Your task to perform on an android device: install app "Viber Messenger" Image 0: 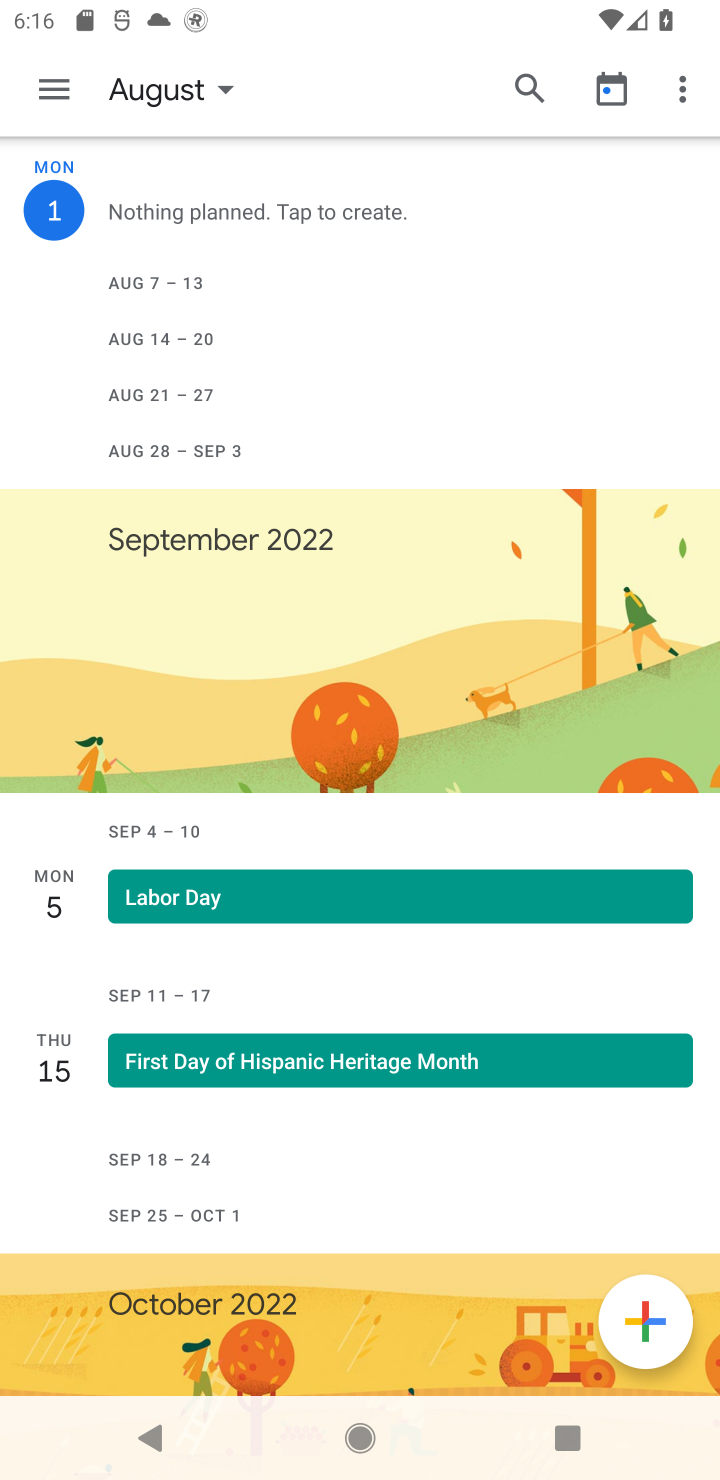
Step 0: press home button
Your task to perform on an android device: install app "Viber Messenger" Image 1: 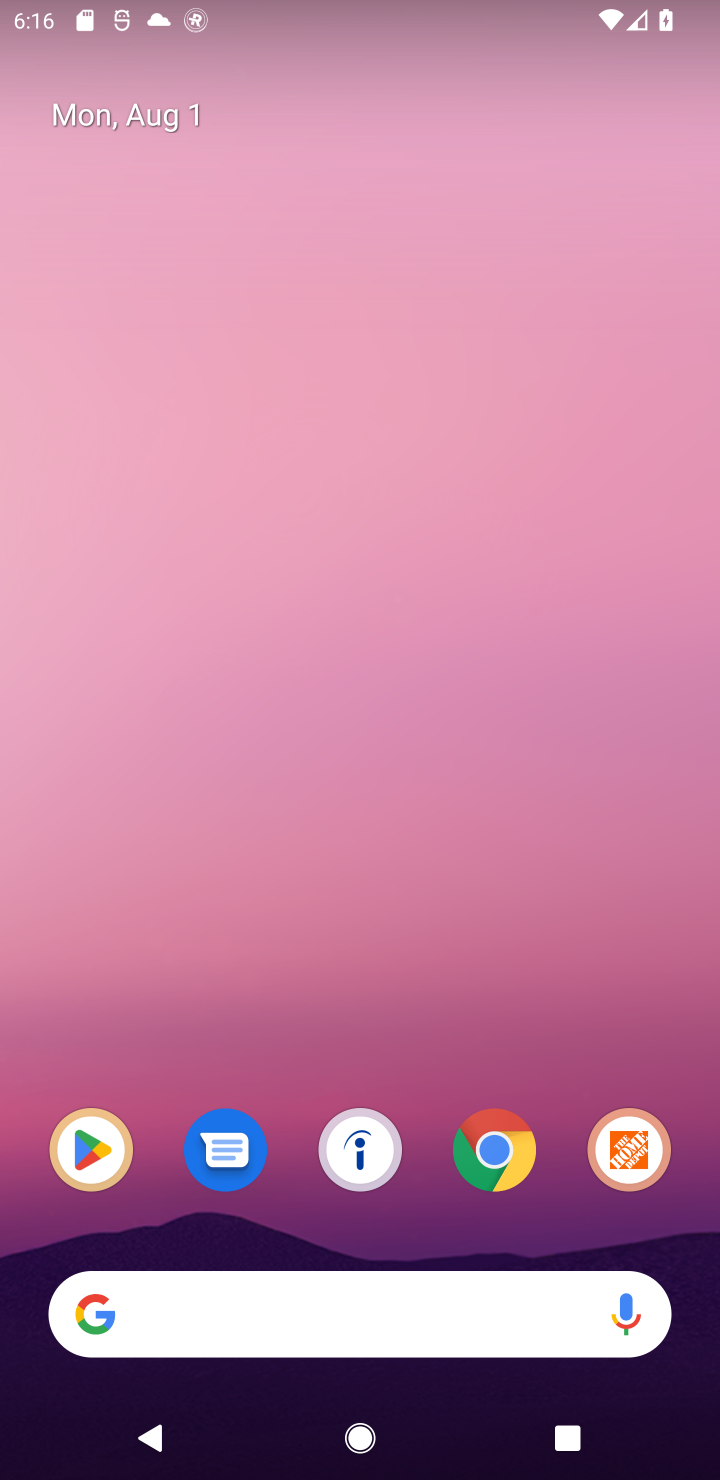
Step 1: click (355, 1306)
Your task to perform on an android device: install app "Viber Messenger" Image 2: 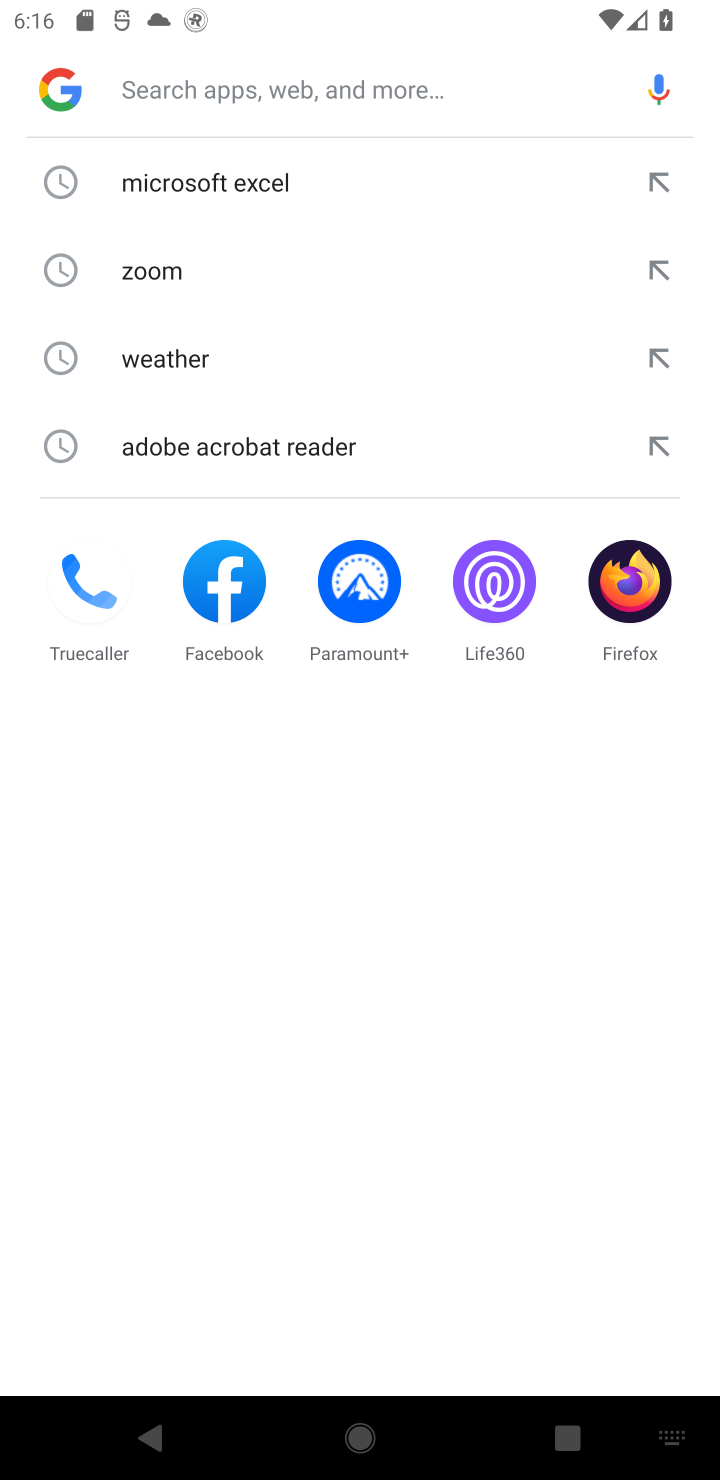
Step 2: type "vider"
Your task to perform on an android device: install app "Viber Messenger" Image 3: 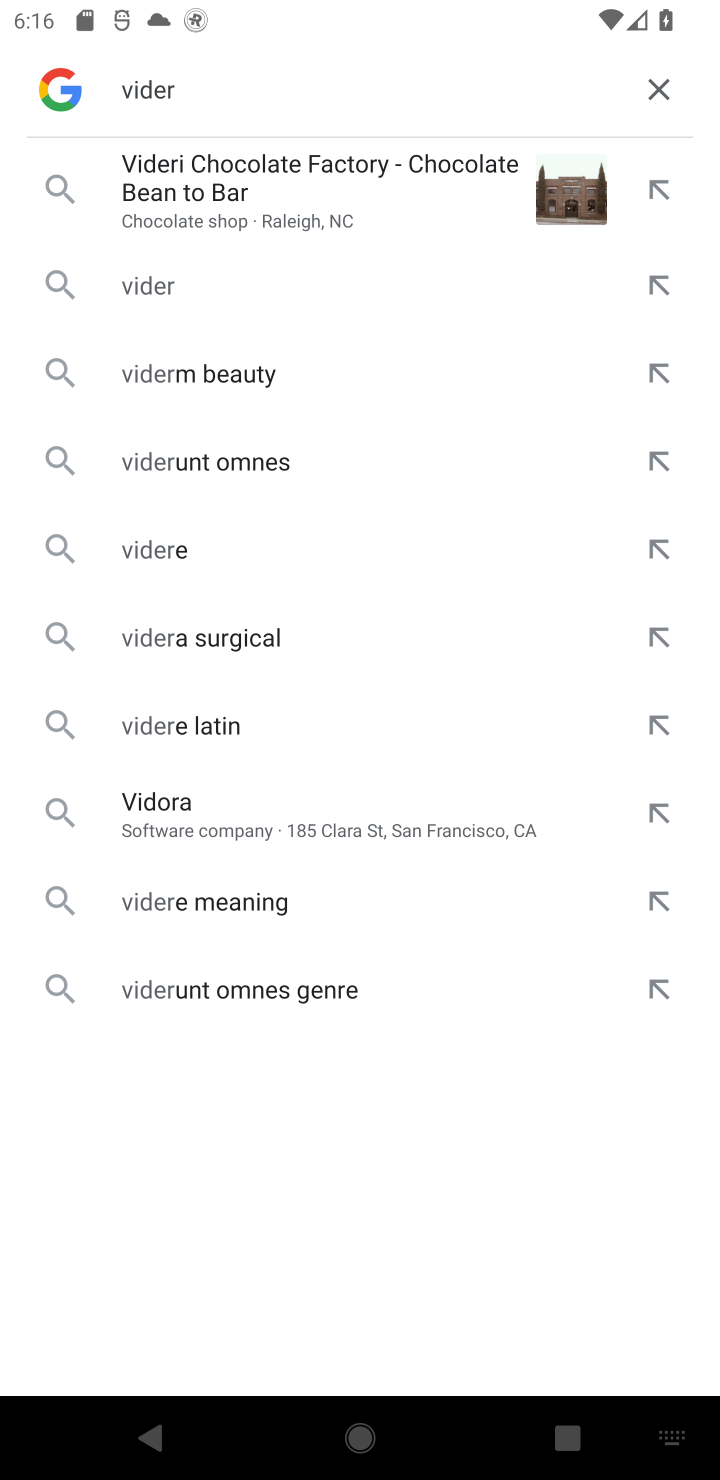
Step 3: task complete